Your task to perform on an android device: turn off data saver in the chrome app Image 0: 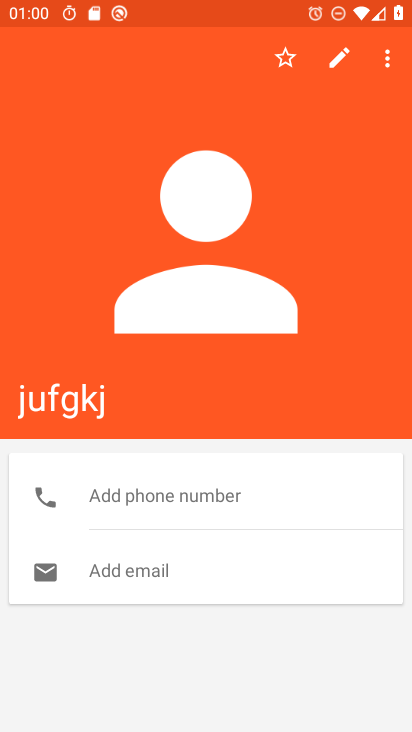
Step 0: press home button
Your task to perform on an android device: turn off data saver in the chrome app Image 1: 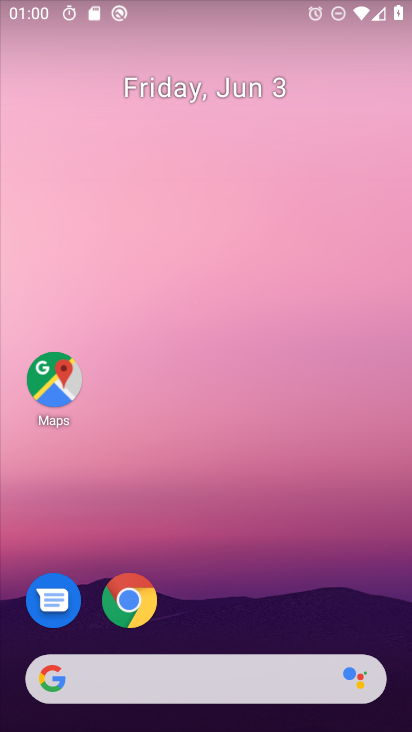
Step 1: click (118, 601)
Your task to perform on an android device: turn off data saver in the chrome app Image 2: 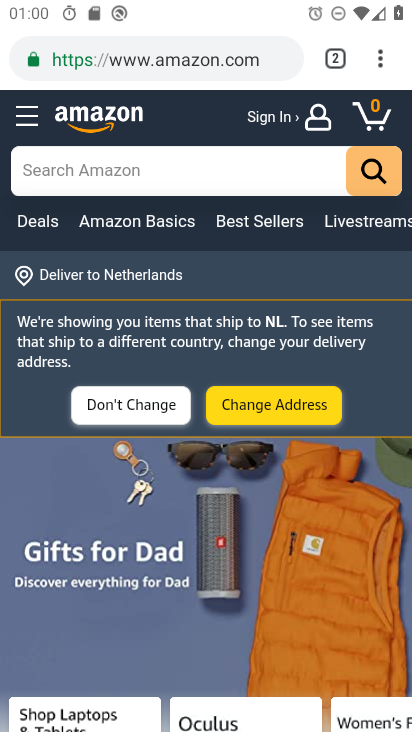
Step 2: click (380, 60)
Your task to perform on an android device: turn off data saver in the chrome app Image 3: 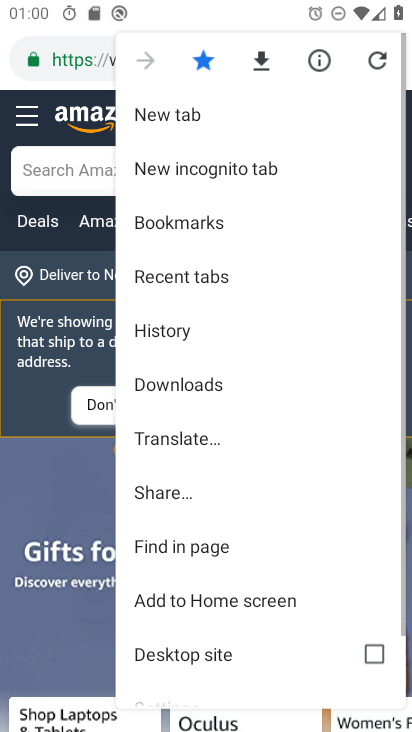
Step 3: drag from (211, 565) to (255, 281)
Your task to perform on an android device: turn off data saver in the chrome app Image 4: 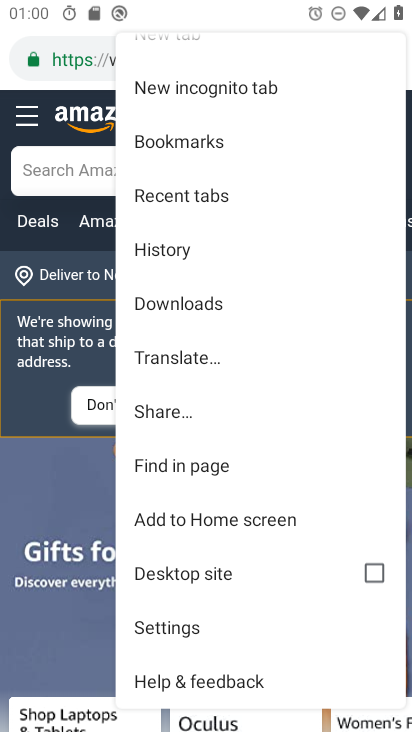
Step 4: click (217, 628)
Your task to perform on an android device: turn off data saver in the chrome app Image 5: 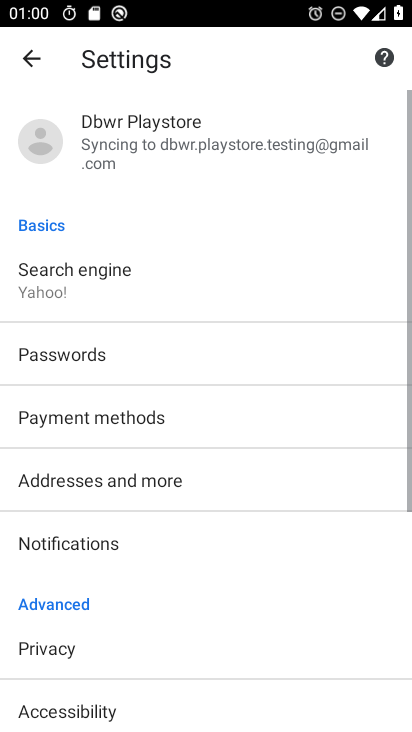
Step 5: drag from (195, 608) to (176, 251)
Your task to perform on an android device: turn off data saver in the chrome app Image 6: 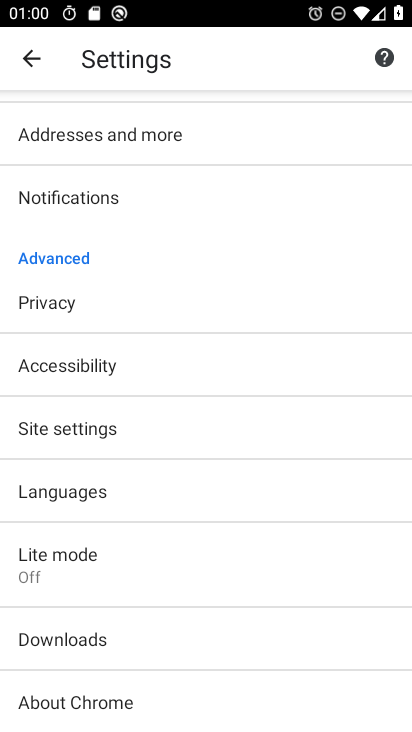
Step 6: click (81, 559)
Your task to perform on an android device: turn off data saver in the chrome app Image 7: 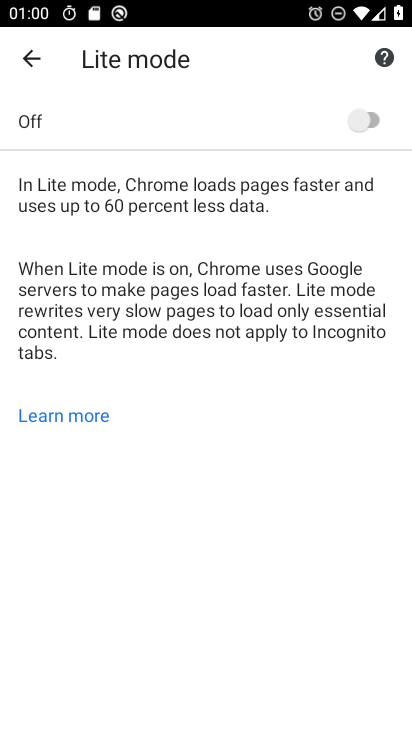
Step 7: task complete